Your task to perform on an android device: Open the calendar app, open the side menu, and click the "Day" option Image 0: 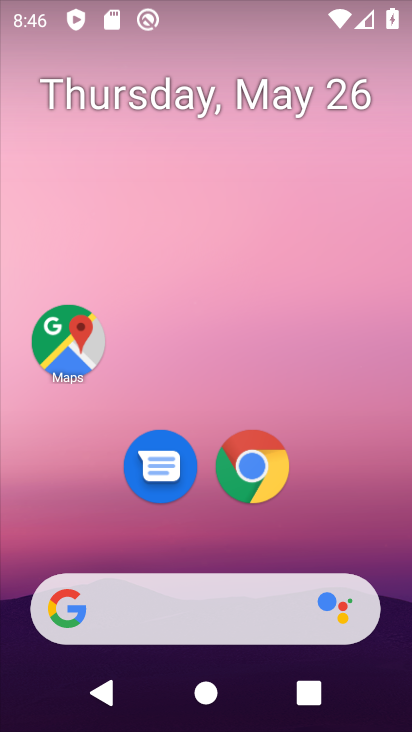
Step 0: drag from (358, 500) to (262, 45)
Your task to perform on an android device: Open the calendar app, open the side menu, and click the "Day" option Image 1: 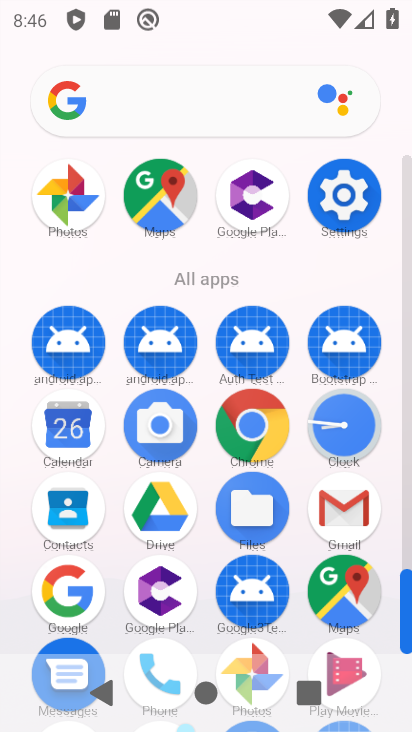
Step 1: click (71, 426)
Your task to perform on an android device: Open the calendar app, open the side menu, and click the "Day" option Image 2: 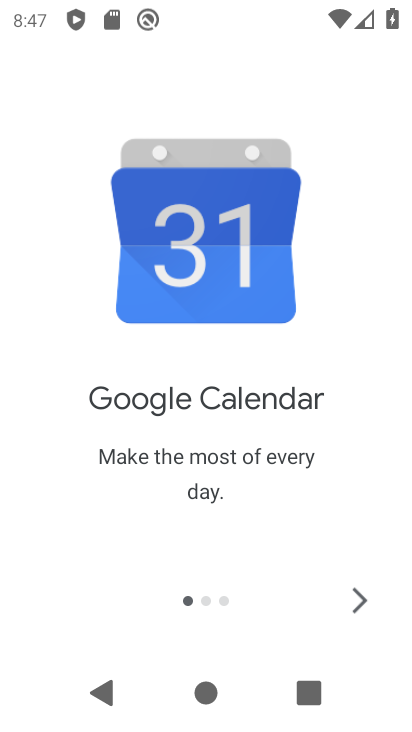
Step 2: click (361, 600)
Your task to perform on an android device: Open the calendar app, open the side menu, and click the "Day" option Image 3: 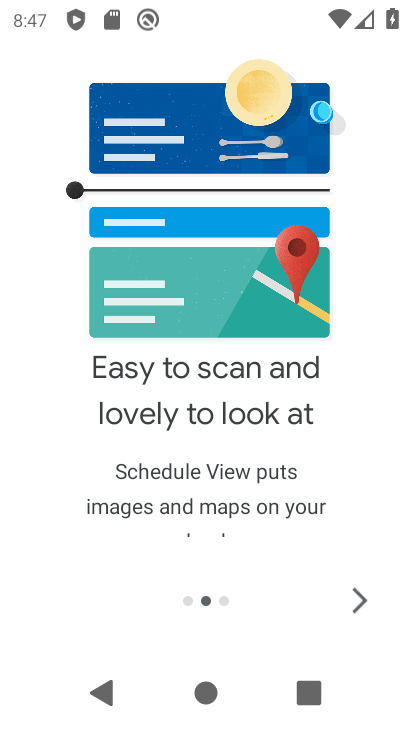
Step 3: click (361, 600)
Your task to perform on an android device: Open the calendar app, open the side menu, and click the "Day" option Image 4: 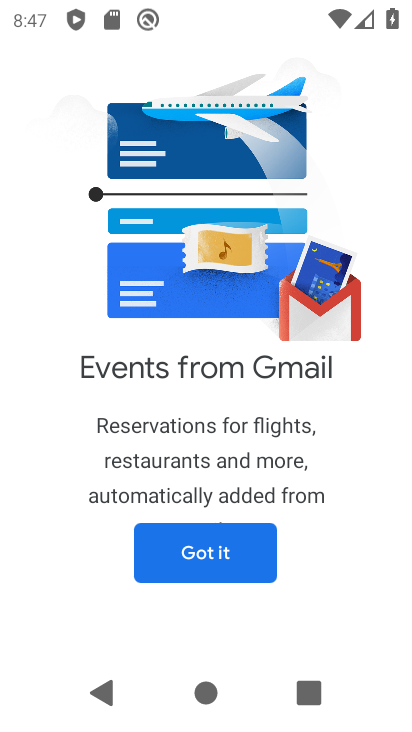
Step 4: click (203, 555)
Your task to perform on an android device: Open the calendar app, open the side menu, and click the "Day" option Image 5: 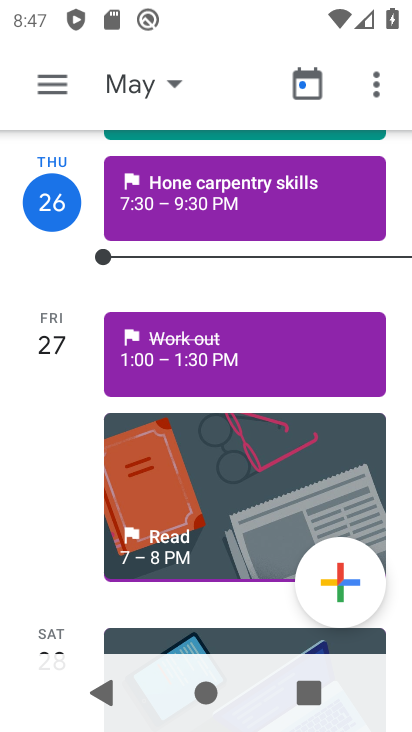
Step 5: click (37, 93)
Your task to perform on an android device: Open the calendar app, open the side menu, and click the "Day" option Image 6: 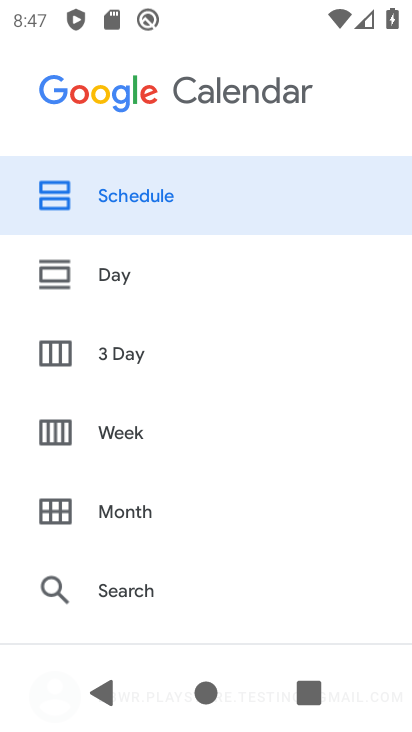
Step 6: click (96, 281)
Your task to perform on an android device: Open the calendar app, open the side menu, and click the "Day" option Image 7: 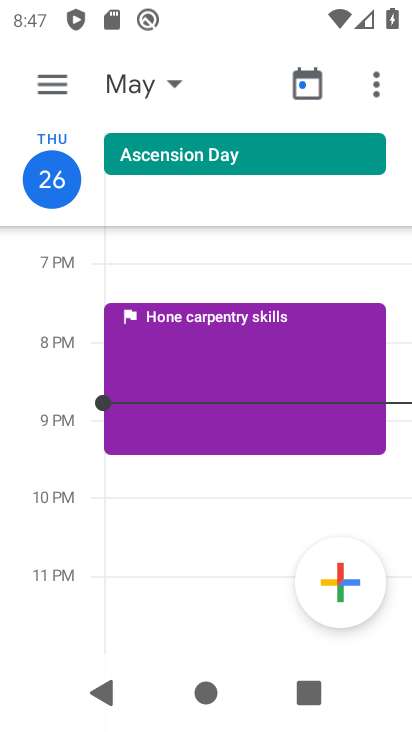
Step 7: task complete